Your task to perform on an android device: Open settings Image 0: 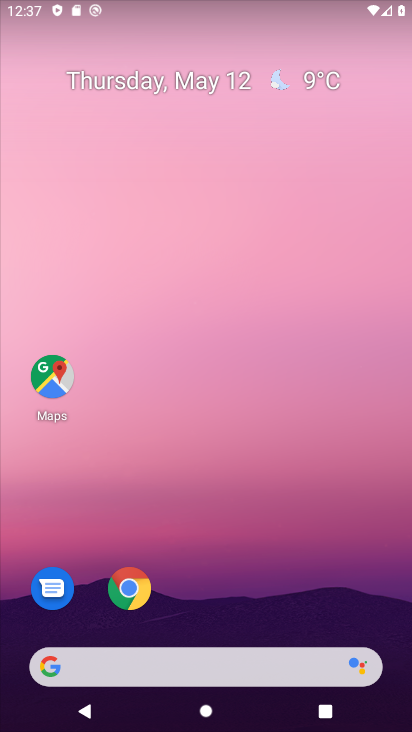
Step 0: drag from (200, 625) to (123, 205)
Your task to perform on an android device: Open settings Image 1: 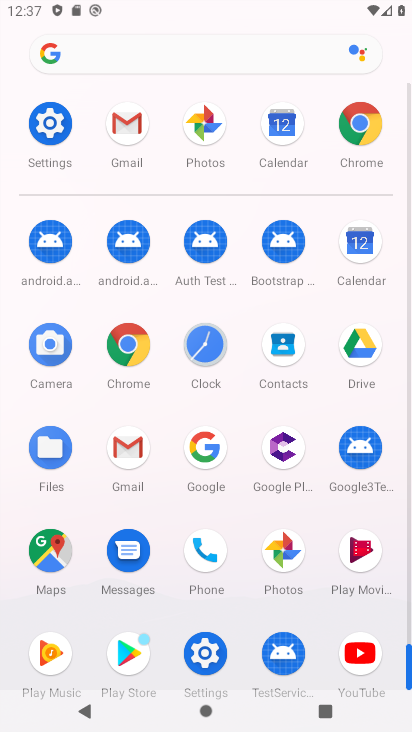
Step 1: click (55, 119)
Your task to perform on an android device: Open settings Image 2: 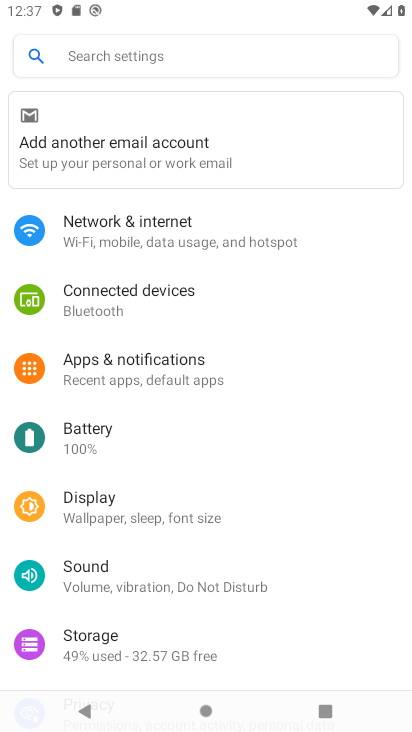
Step 2: task complete